Your task to perform on an android device: What's the weather today? Image 0: 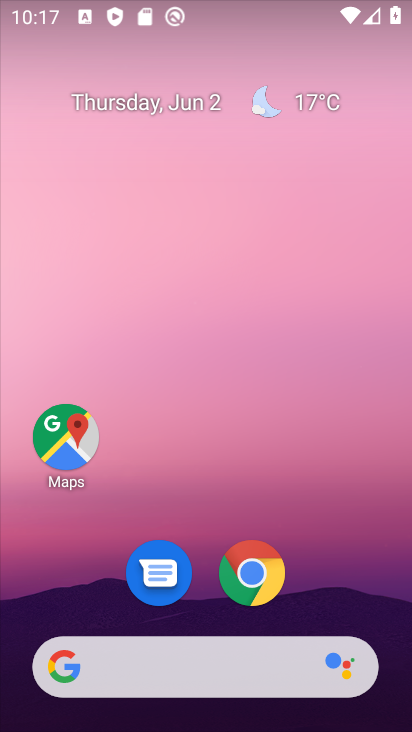
Step 0: click (313, 110)
Your task to perform on an android device: What's the weather today? Image 1: 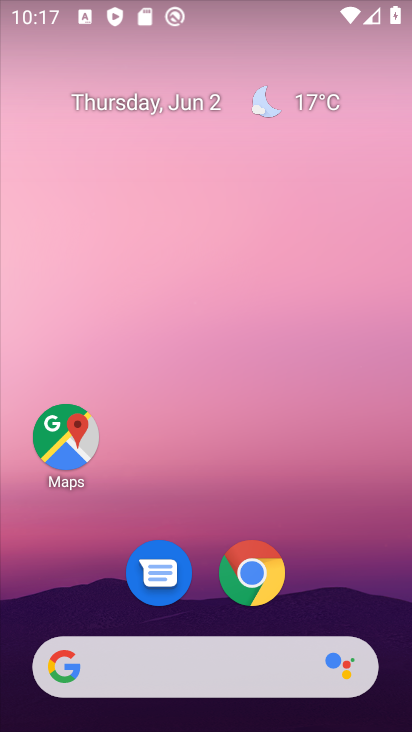
Step 1: click (335, 101)
Your task to perform on an android device: What's the weather today? Image 2: 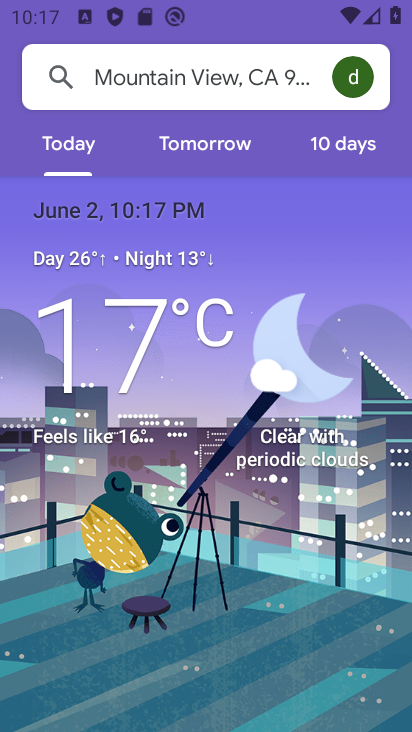
Step 2: task complete